Your task to perform on an android device: Go to Maps Image 0: 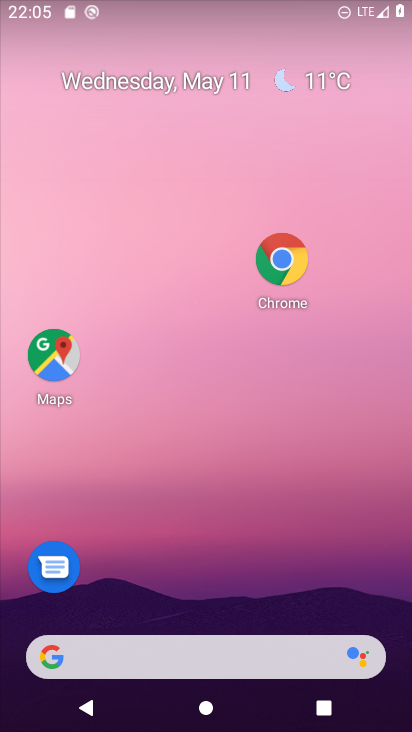
Step 0: click (53, 365)
Your task to perform on an android device: Go to Maps Image 1: 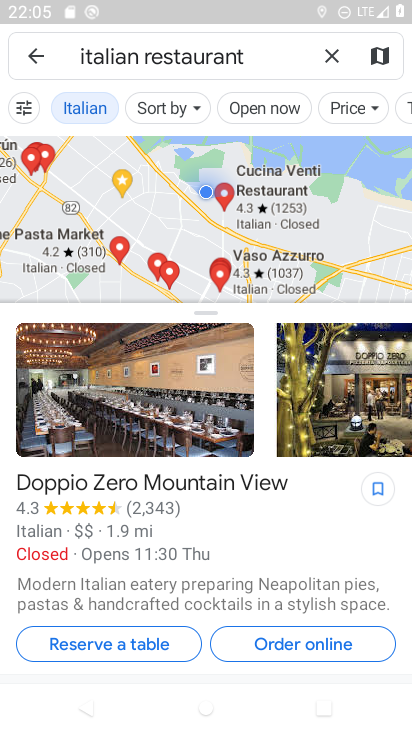
Step 1: task complete